Your task to perform on an android device: delete location history Image 0: 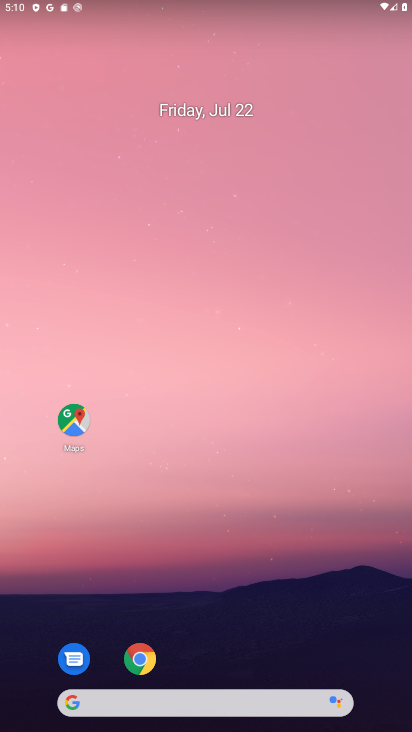
Step 0: press home button
Your task to perform on an android device: delete location history Image 1: 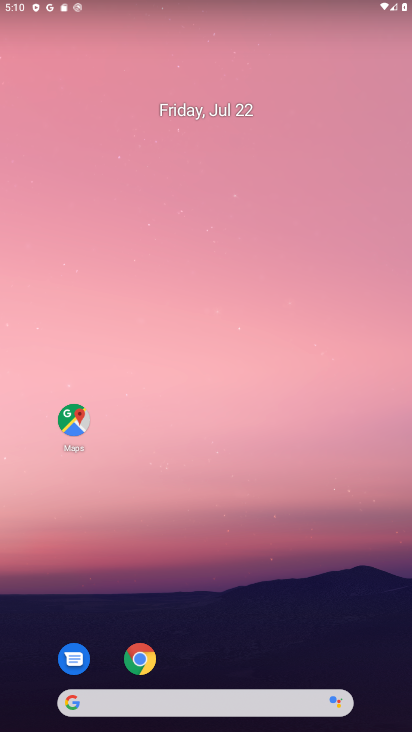
Step 1: drag from (222, 664) to (251, 98)
Your task to perform on an android device: delete location history Image 2: 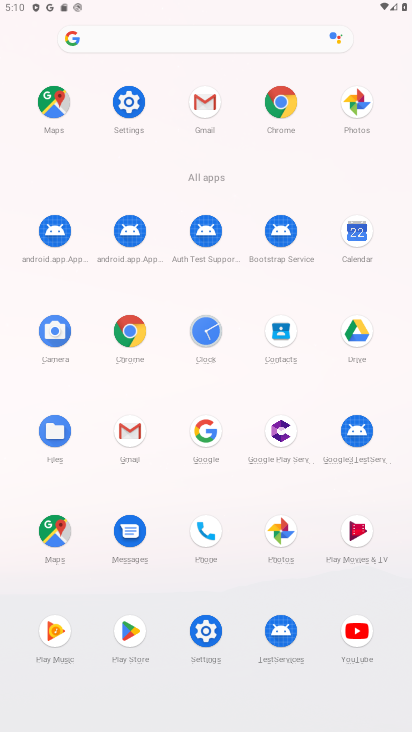
Step 2: click (53, 526)
Your task to perform on an android device: delete location history Image 3: 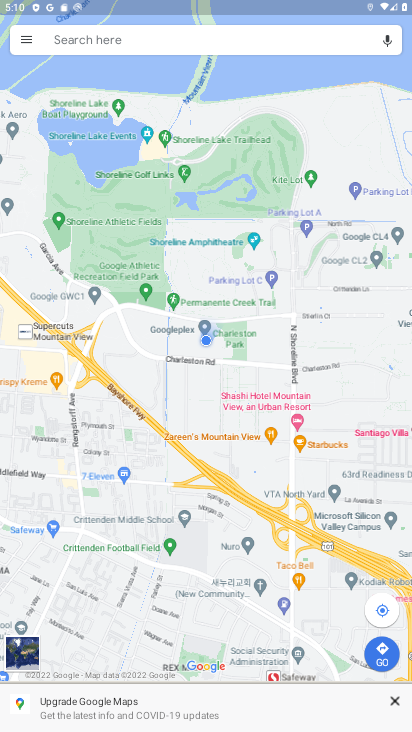
Step 3: click (16, 38)
Your task to perform on an android device: delete location history Image 4: 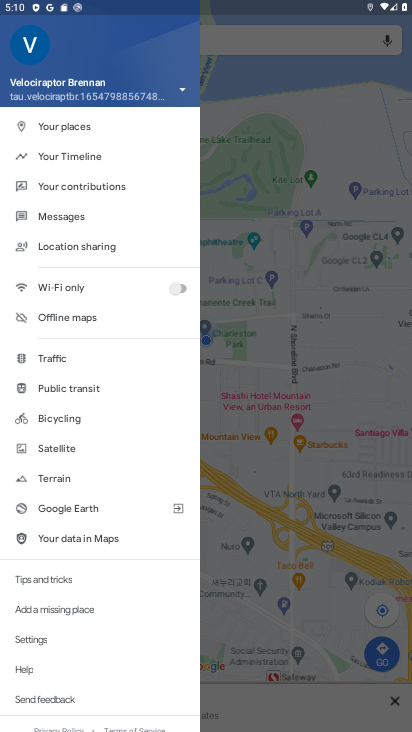
Step 4: click (89, 156)
Your task to perform on an android device: delete location history Image 5: 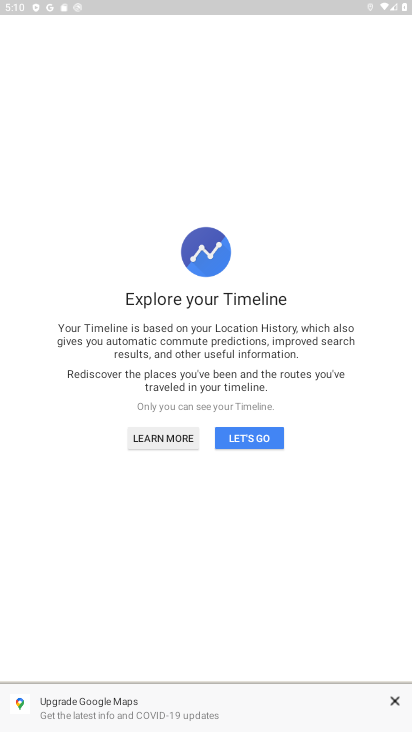
Step 5: click (245, 434)
Your task to perform on an android device: delete location history Image 6: 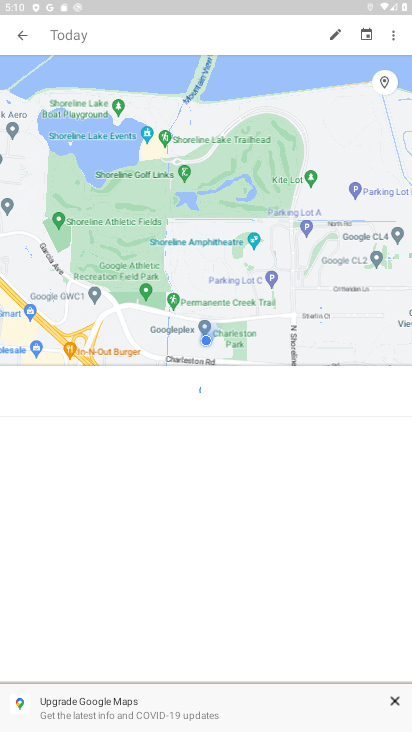
Step 6: click (395, 29)
Your task to perform on an android device: delete location history Image 7: 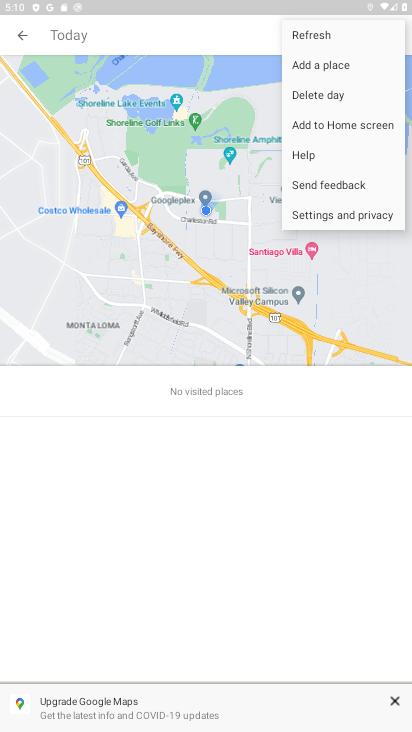
Step 7: click (324, 216)
Your task to perform on an android device: delete location history Image 8: 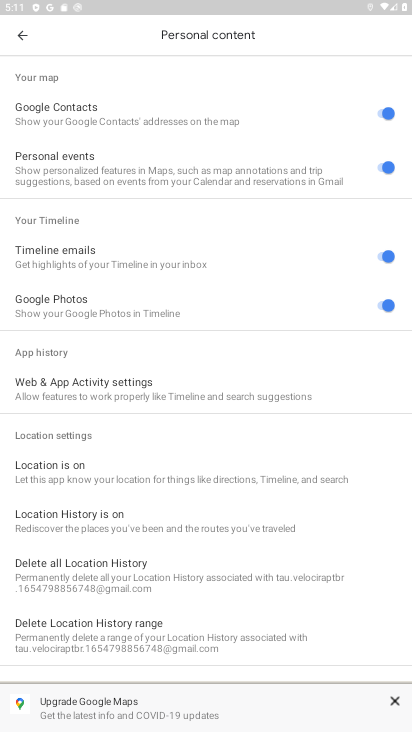
Step 8: click (126, 565)
Your task to perform on an android device: delete location history Image 9: 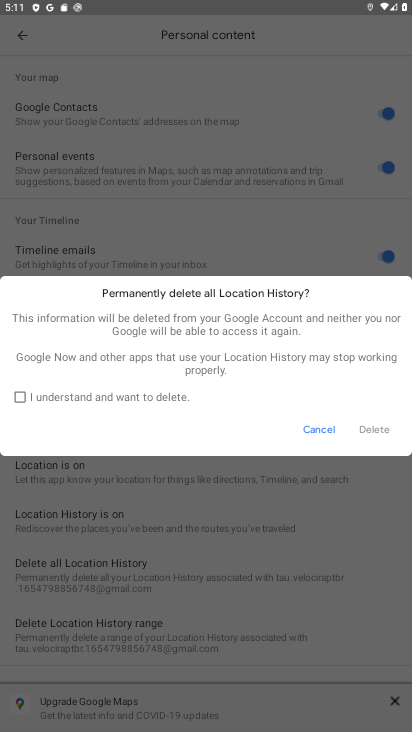
Step 9: click (15, 401)
Your task to perform on an android device: delete location history Image 10: 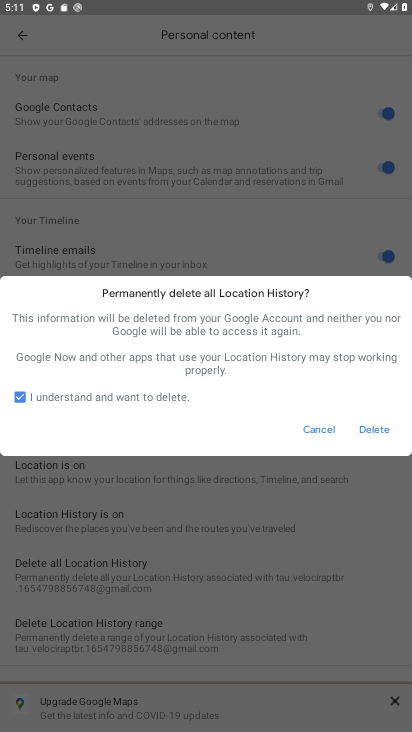
Step 10: click (376, 427)
Your task to perform on an android device: delete location history Image 11: 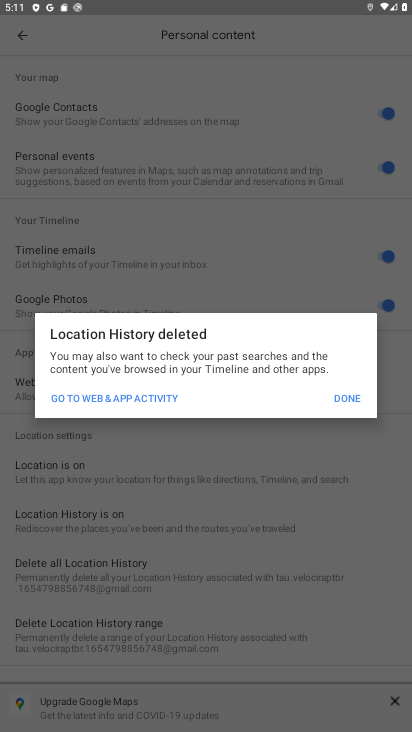
Step 11: click (353, 399)
Your task to perform on an android device: delete location history Image 12: 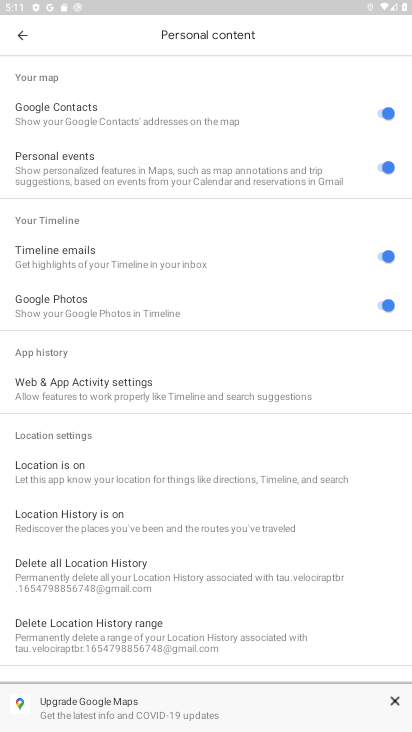
Step 12: task complete